Your task to perform on an android device: Open Google Image 0: 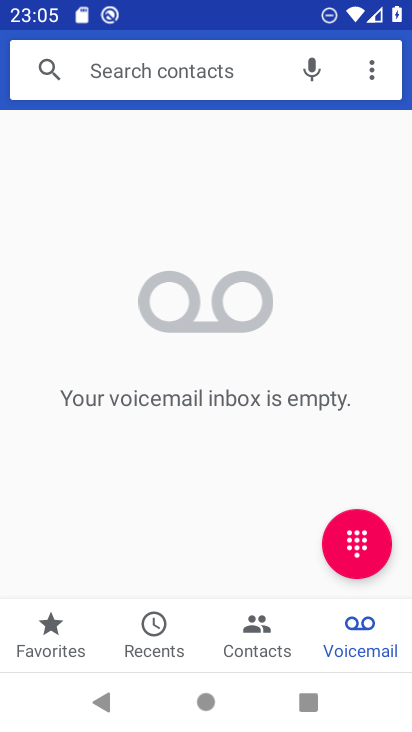
Step 0: press home button
Your task to perform on an android device: Open Google Image 1: 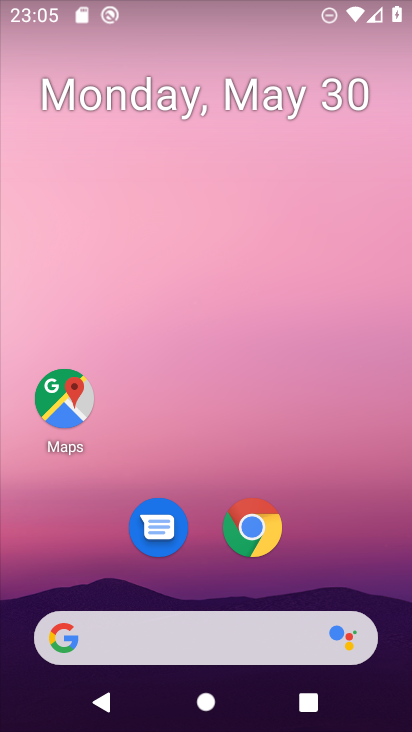
Step 1: drag from (259, 578) to (267, 209)
Your task to perform on an android device: Open Google Image 2: 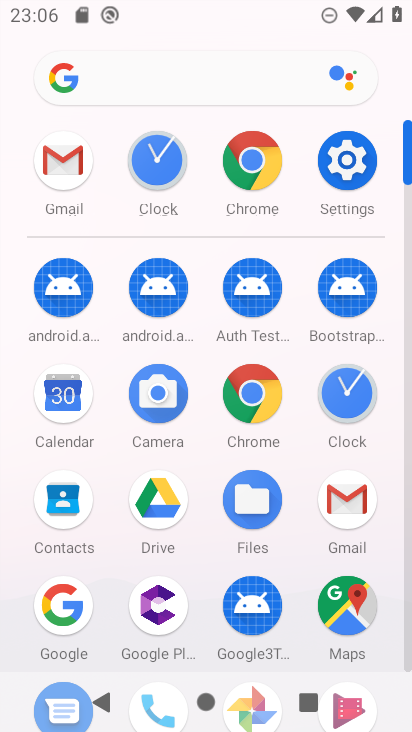
Step 2: drag from (191, 579) to (193, 380)
Your task to perform on an android device: Open Google Image 3: 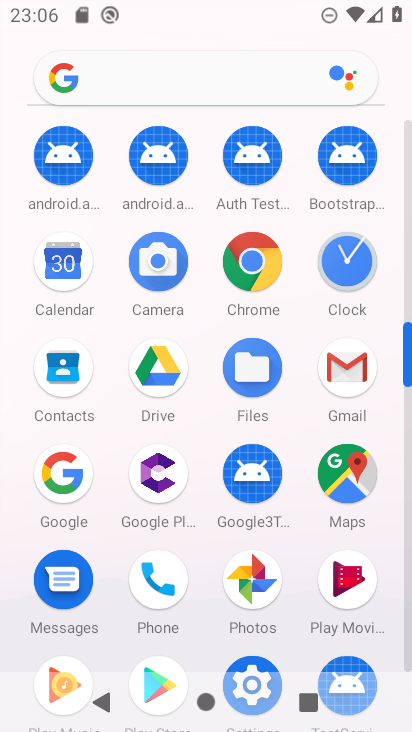
Step 3: click (49, 474)
Your task to perform on an android device: Open Google Image 4: 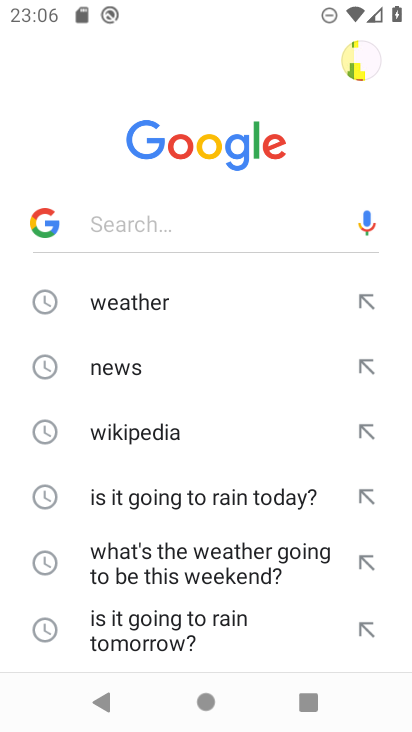
Step 4: task complete